Your task to perform on an android device: See recent photos Image 0: 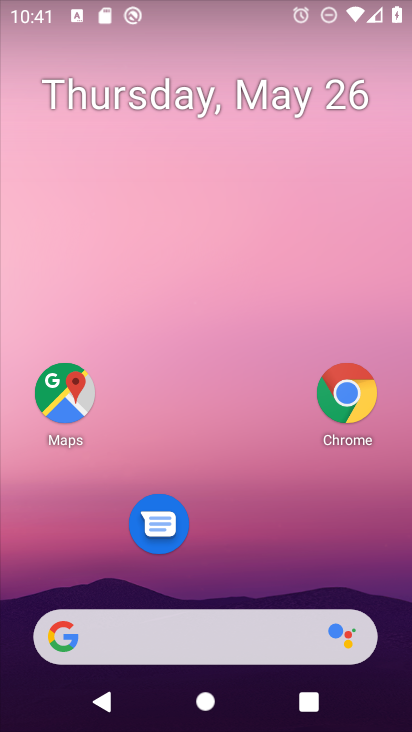
Step 0: drag from (229, 462) to (191, 33)
Your task to perform on an android device: See recent photos Image 1: 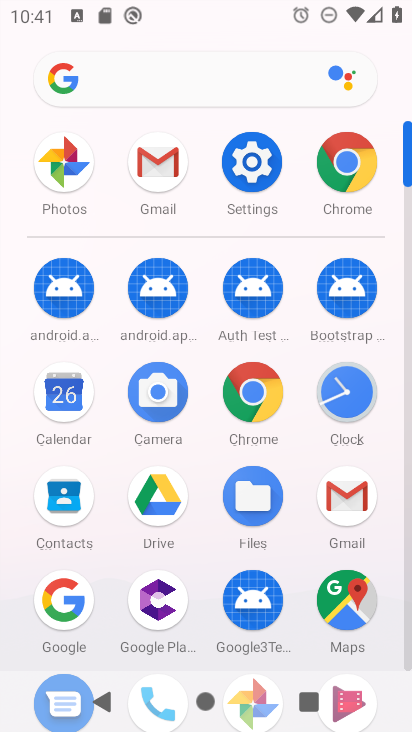
Step 1: click (74, 172)
Your task to perform on an android device: See recent photos Image 2: 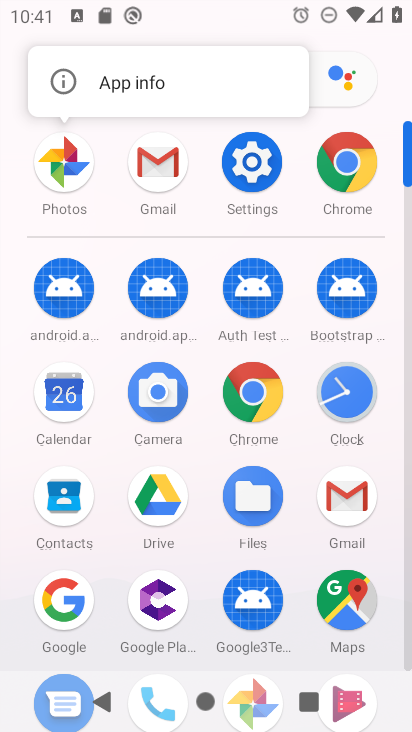
Step 2: click (71, 167)
Your task to perform on an android device: See recent photos Image 3: 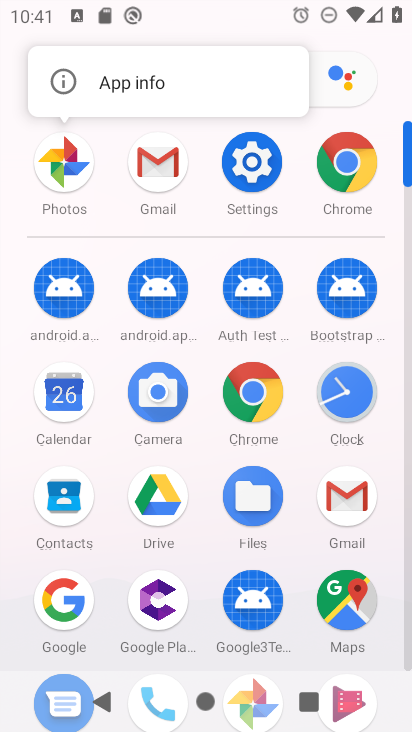
Step 3: click (60, 165)
Your task to perform on an android device: See recent photos Image 4: 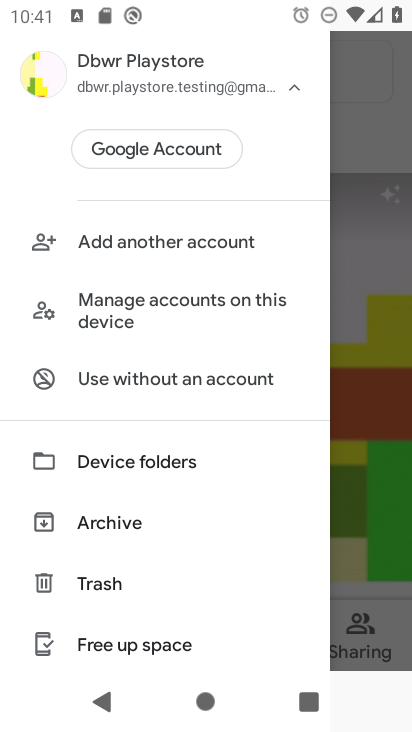
Step 4: click (372, 373)
Your task to perform on an android device: See recent photos Image 5: 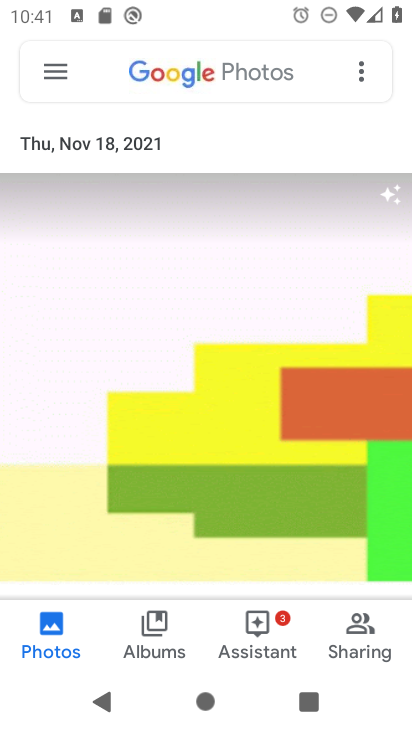
Step 5: task complete